Your task to perform on an android device: change notification settings in the gmail app Image 0: 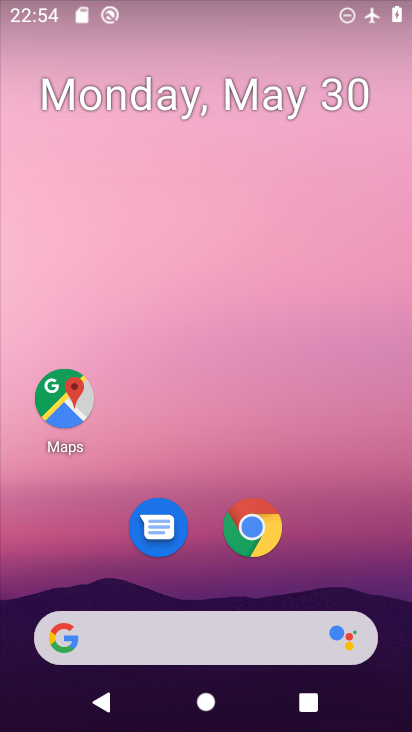
Step 0: drag from (320, 545) to (298, 269)
Your task to perform on an android device: change notification settings in the gmail app Image 1: 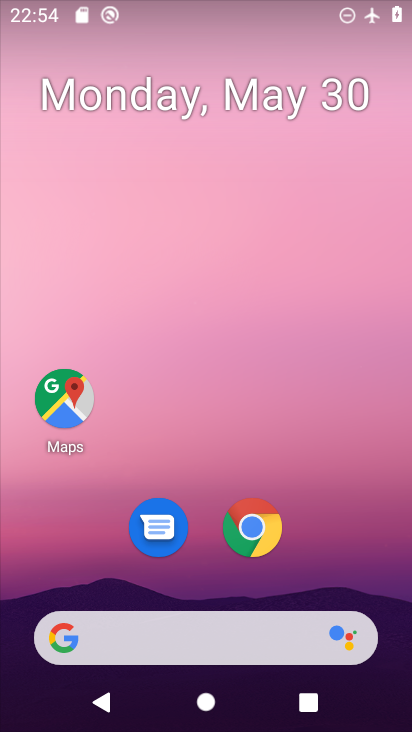
Step 1: drag from (222, 563) to (211, 241)
Your task to perform on an android device: change notification settings in the gmail app Image 2: 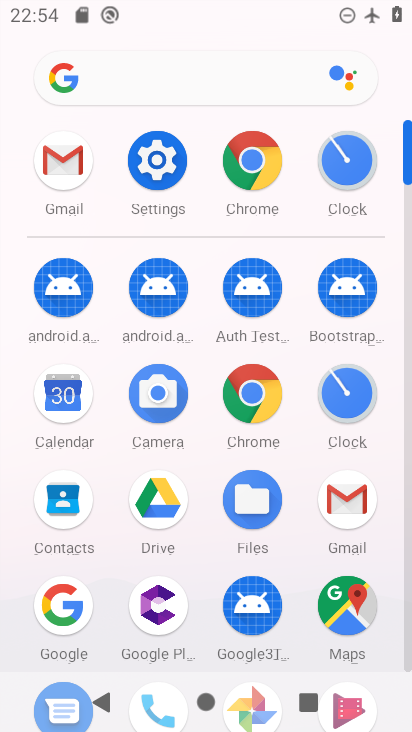
Step 2: click (49, 158)
Your task to perform on an android device: change notification settings in the gmail app Image 3: 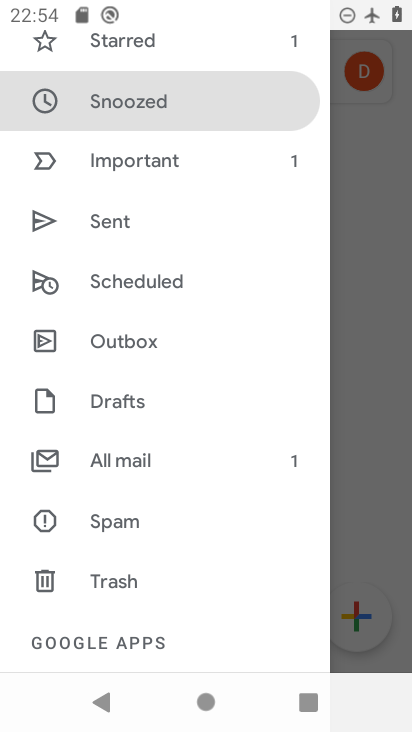
Step 3: drag from (162, 575) to (222, 310)
Your task to perform on an android device: change notification settings in the gmail app Image 4: 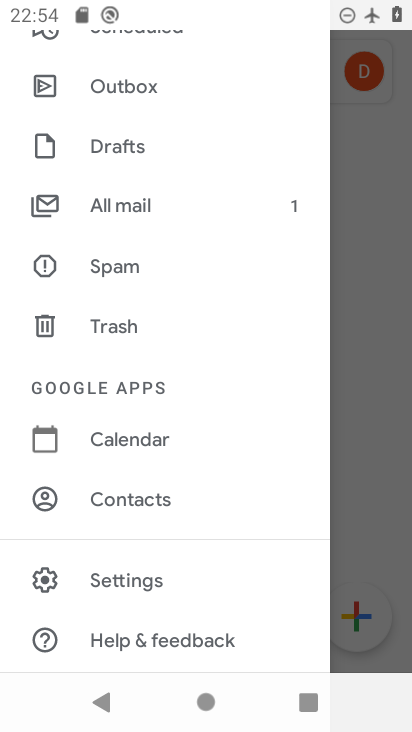
Step 4: click (139, 576)
Your task to perform on an android device: change notification settings in the gmail app Image 5: 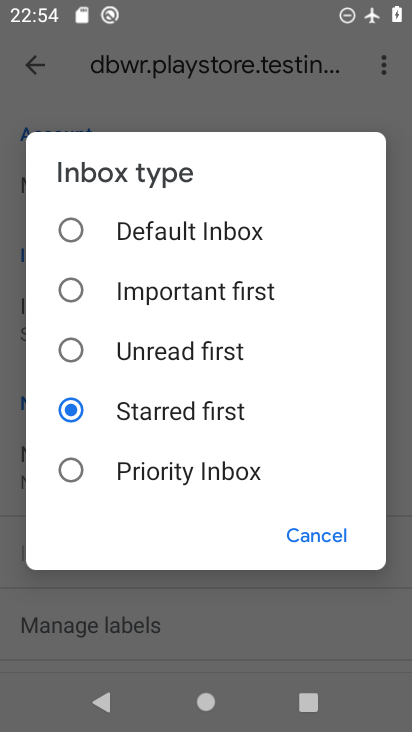
Step 5: click (309, 527)
Your task to perform on an android device: change notification settings in the gmail app Image 6: 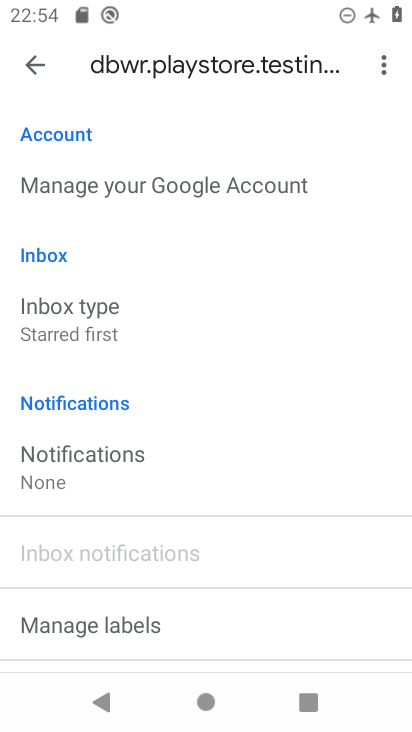
Step 6: click (138, 455)
Your task to perform on an android device: change notification settings in the gmail app Image 7: 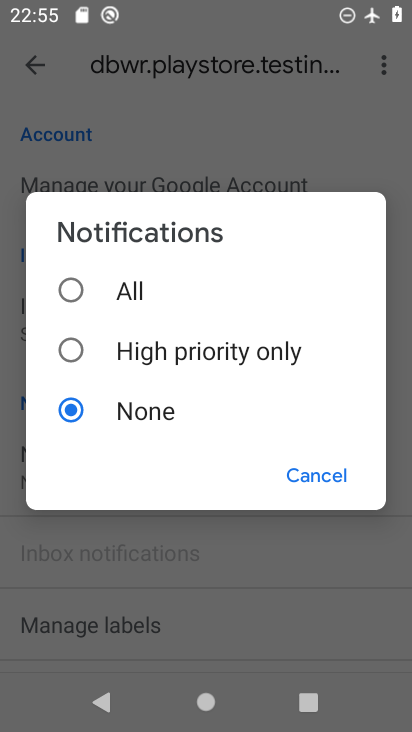
Step 7: click (131, 292)
Your task to perform on an android device: change notification settings in the gmail app Image 8: 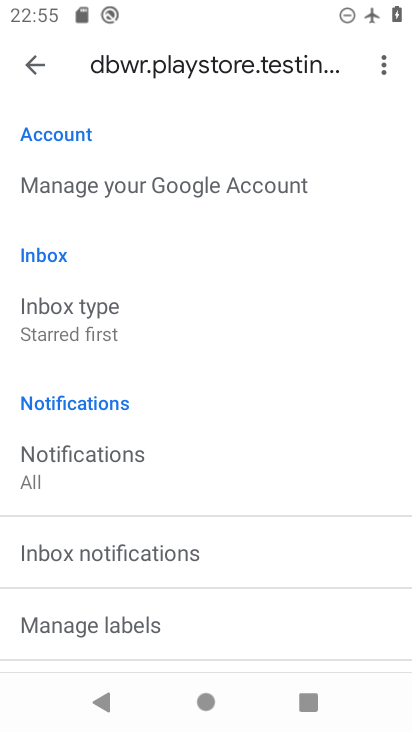
Step 8: task complete